Your task to perform on an android device: Open Google Chrome Image 0: 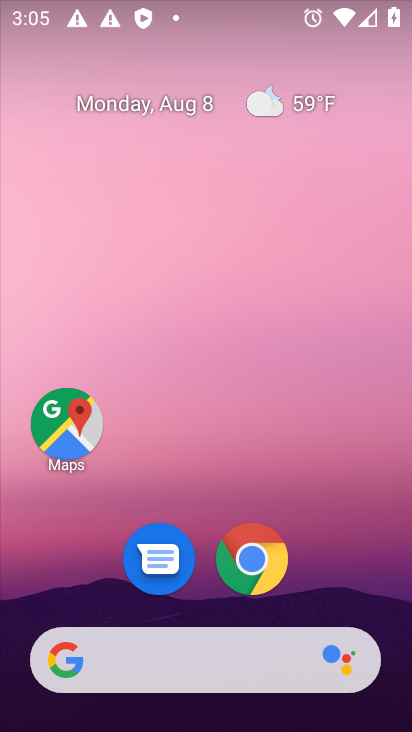
Step 0: click (254, 557)
Your task to perform on an android device: Open Google Chrome Image 1: 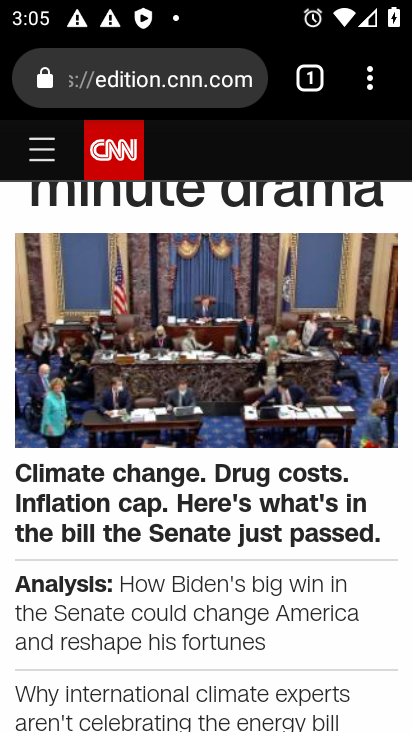
Step 1: task complete